Your task to perform on an android device: Open the map Image 0: 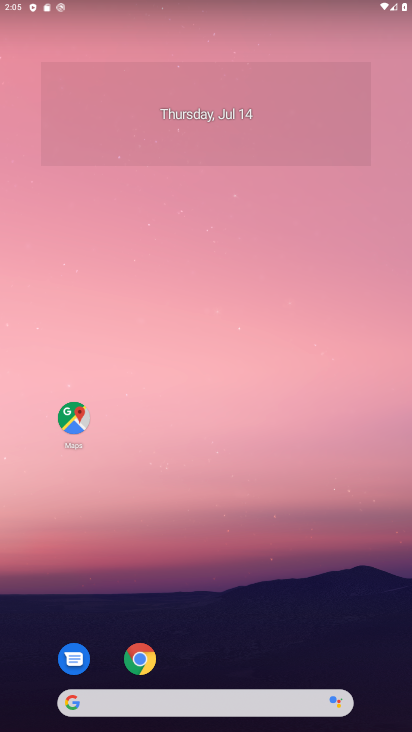
Step 0: press home button
Your task to perform on an android device: Open the map Image 1: 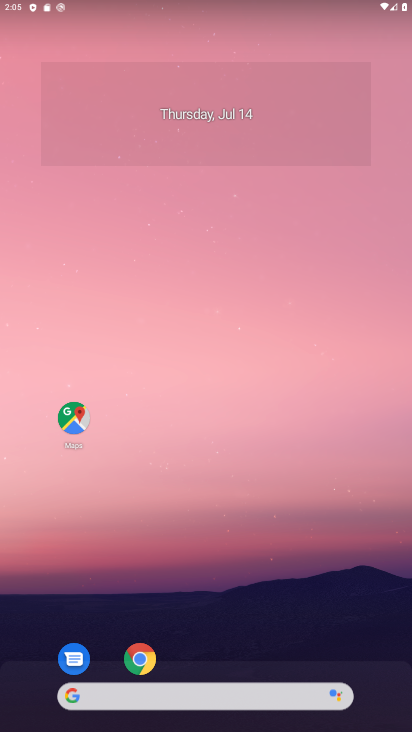
Step 1: click (67, 425)
Your task to perform on an android device: Open the map Image 2: 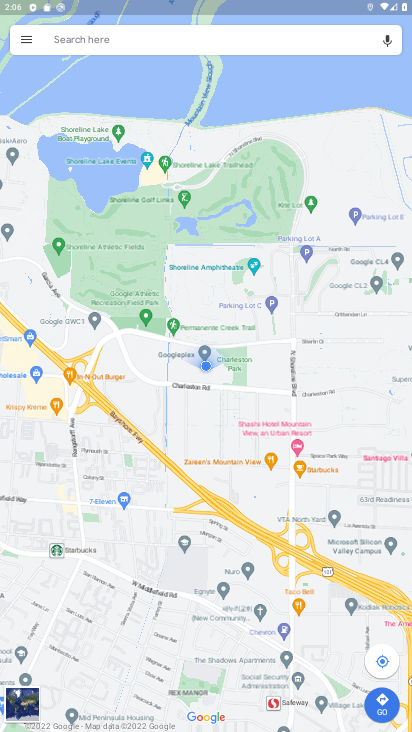
Step 2: task complete